Your task to perform on an android device: turn off location history Image 0: 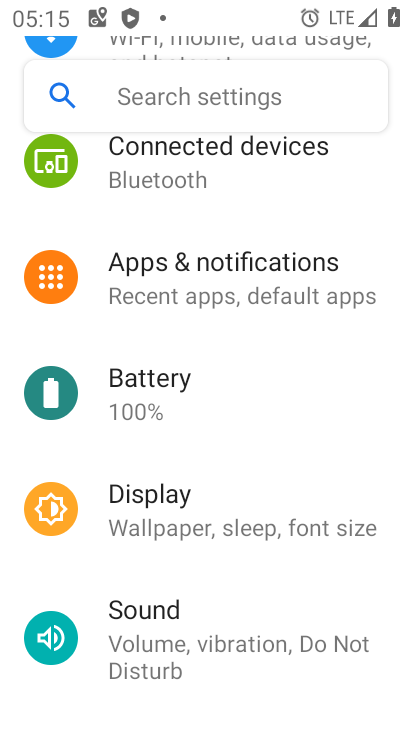
Step 0: drag from (295, 503) to (262, 105)
Your task to perform on an android device: turn off location history Image 1: 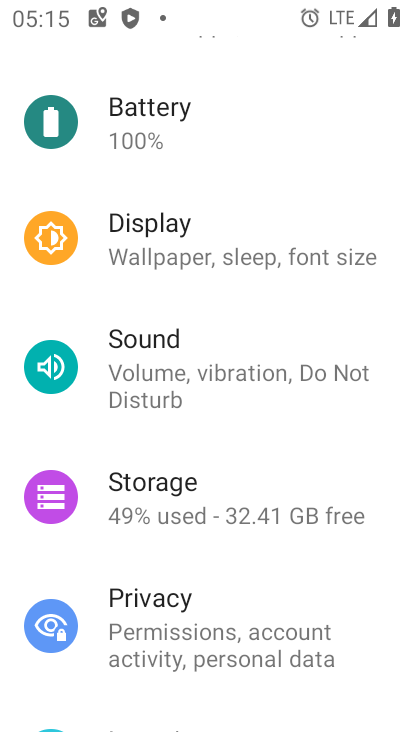
Step 1: drag from (240, 613) to (295, 174)
Your task to perform on an android device: turn off location history Image 2: 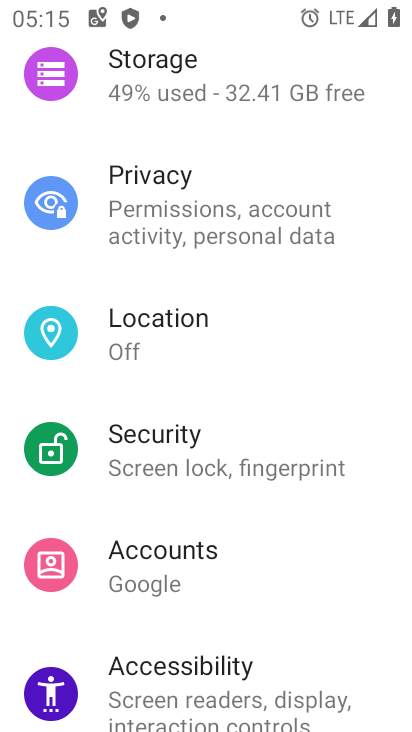
Step 2: click (256, 339)
Your task to perform on an android device: turn off location history Image 3: 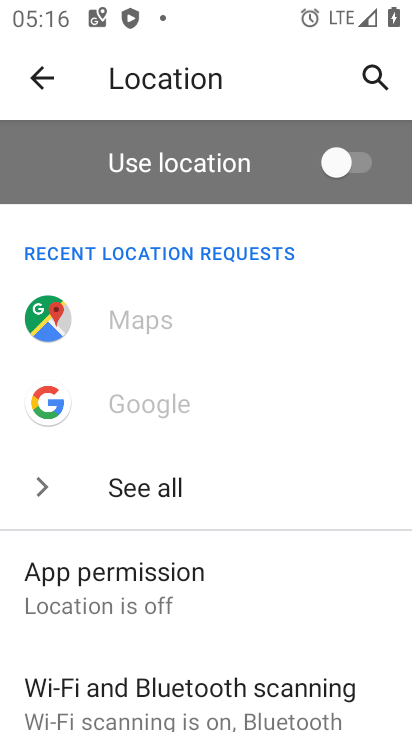
Step 3: drag from (359, 663) to (342, 131)
Your task to perform on an android device: turn off location history Image 4: 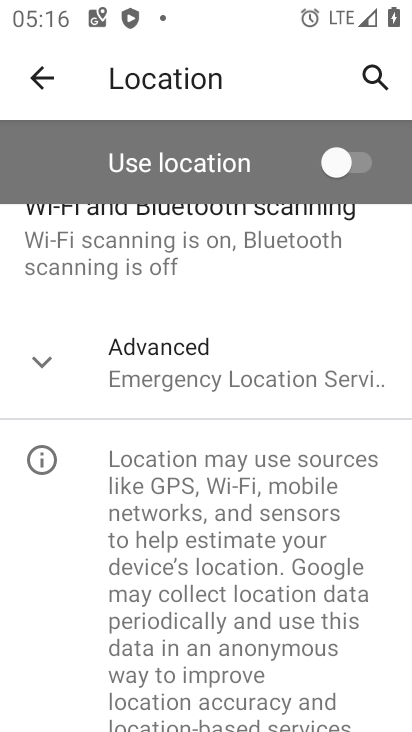
Step 4: drag from (294, 646) to (312, 339)
Your task to perform on an android device: turn off location history Image 5: 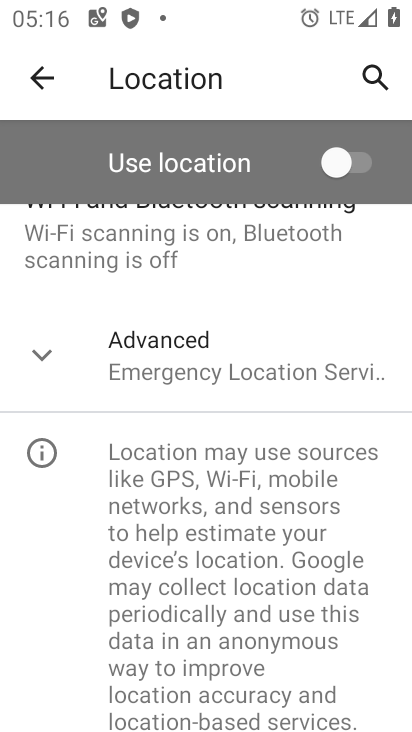
Step 5: click (296, 341)
Your task to perform on an android device: turn off location history Image 6: 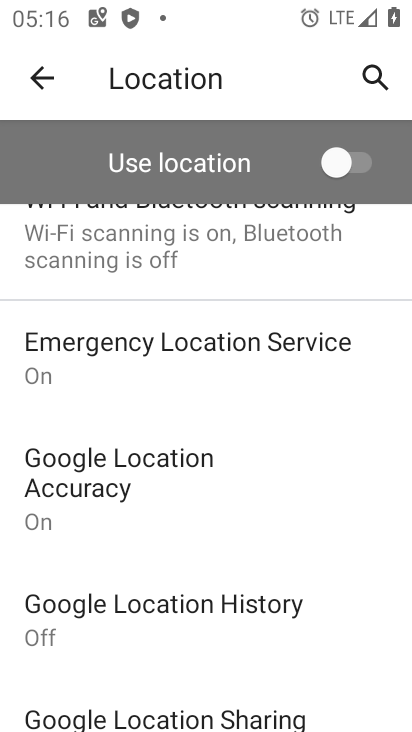
Step 6: click (108, 612)
Your task to perform on an android device: turn off location history Image 7: 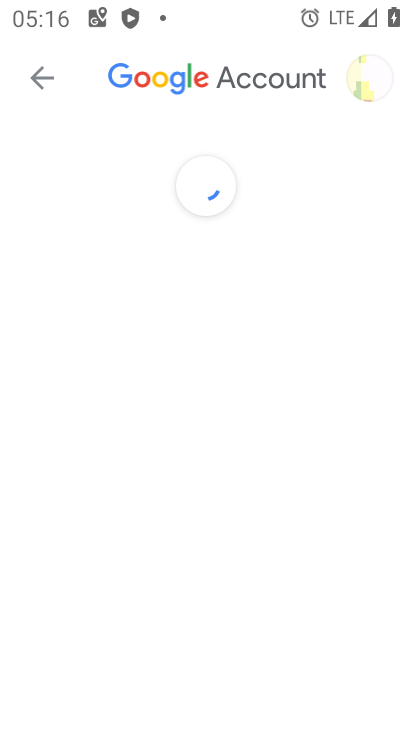
Step 7: drag from (313, 596) to (398, 172)
Your task to perform on an android device: turn off location history Image 8: 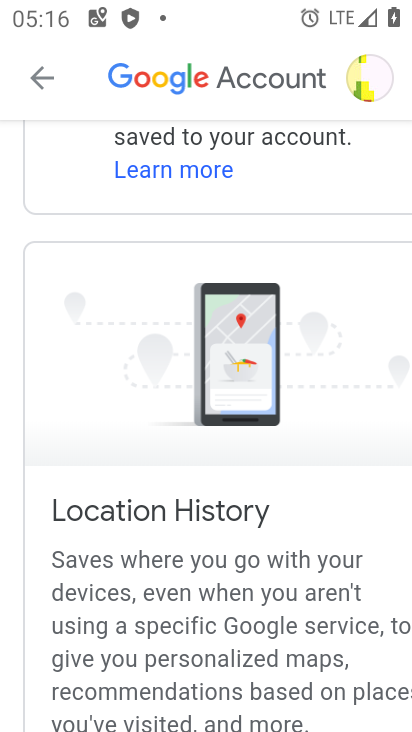
Step 8: drag from (286, 656) to (320, 167)
Your task to perform on an android device: turn off location history Image 9: 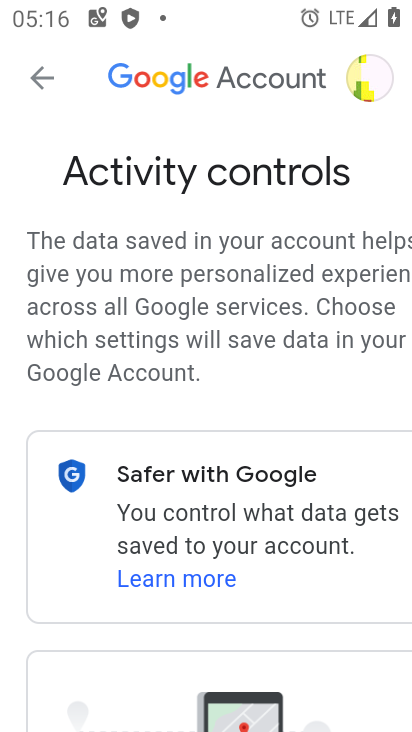
Step 9: drag from (255, 657) to (188, 104)
Your task to perform on an android device: turn off location history Image 10: 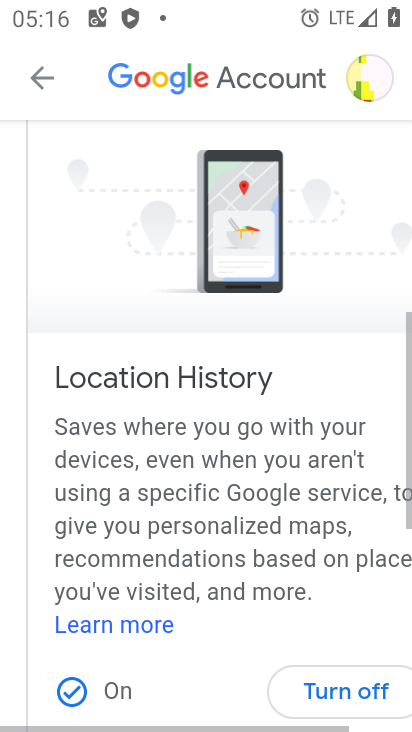
Step 10: drag from (192, 668) to (203, 291)
Your task to perform on an android device: turn off location history Image 11: 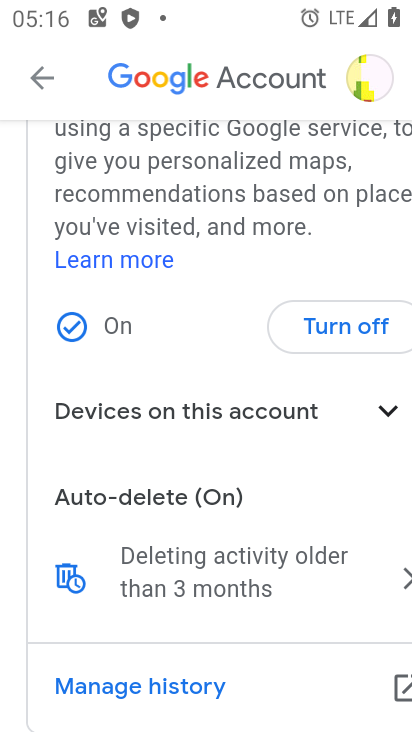
Step 11: click (342, 324)
Your task to perform on an android device: turn off location history Image 12: 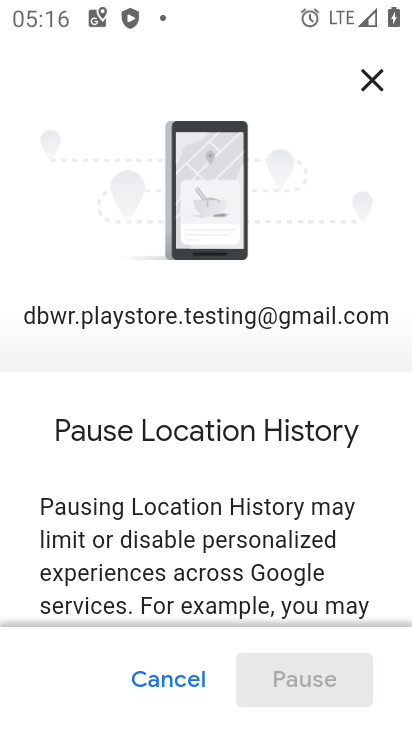
Step 12: drag from (291, 572) to (283, 60)
Your task to perform on an android device: turn off location history Image 13: 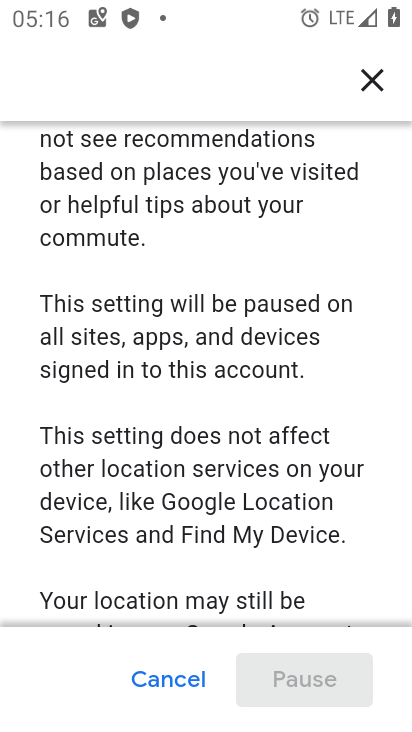
Step 13: drag from (291, 549) to (290, 136)
Your task to perform on an android device: turn off location history Image 14: 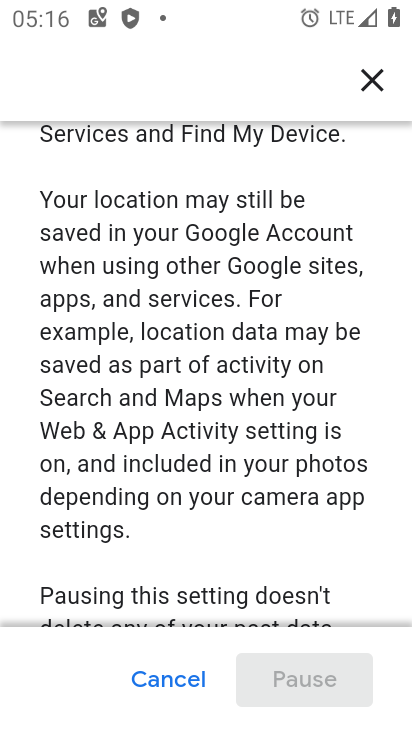
Step 14: drag from (314, 559) to (352, 152)
Your task to perform on an android device: turn off location history Image 15: 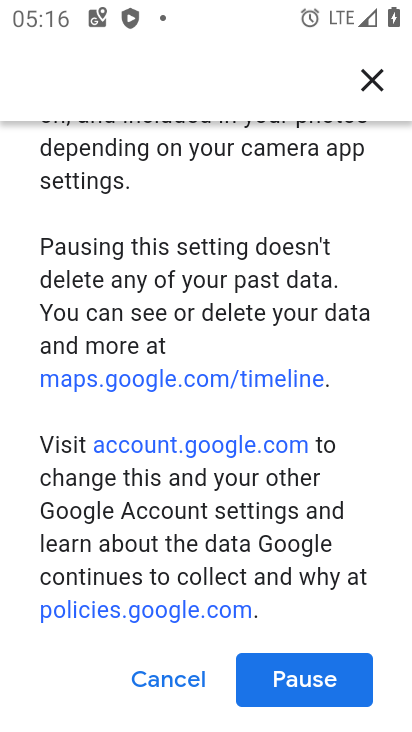
Step 15: drag from (297, 547) to (335, 211)
Your task to perform on an android device: turn off location history Image 16: 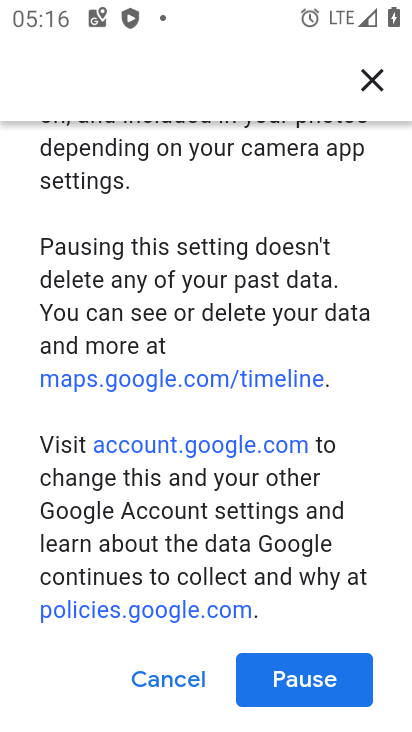
Step 16: click (332, 686)
Your task to perform on an android device: turn off location history Image 17: 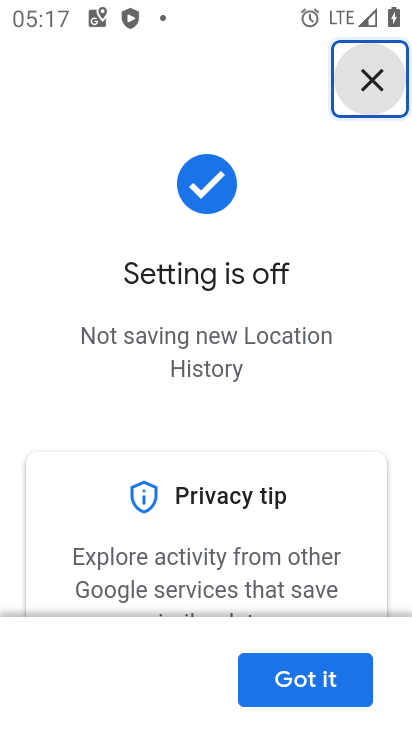
Step 17: task complete